Your task to perform on an android device: star an email in the gmail app Image 0: 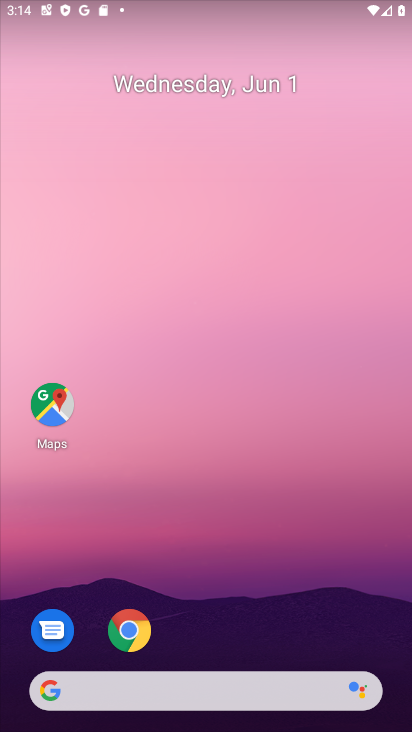
Step 0: drag from (239, 514) to (214, 4)
Your task to perform on an android device: star an email in the gmail app Image 1: 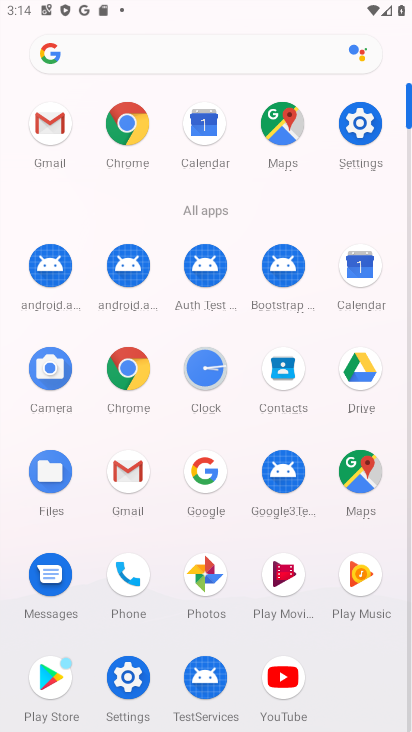
Step 1: click (45, 119)
Your task to perform on an android device: star an email in the gmail app Image 2: 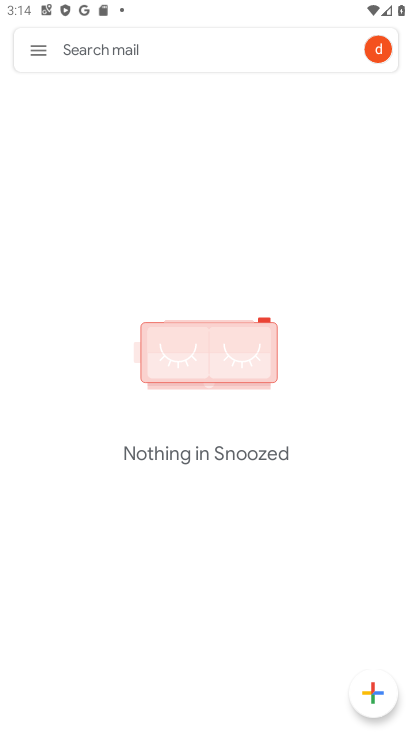
Step 2: click (35, 43)
Your task to perform on an android device: star an email in the gmail app Image 3: 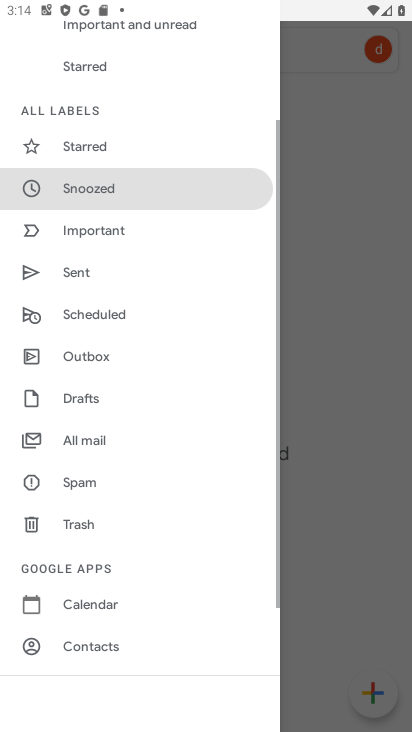
Step 3: click (55, 442)
Your task to perform on an android device: star an email in the gmail app Image 4: 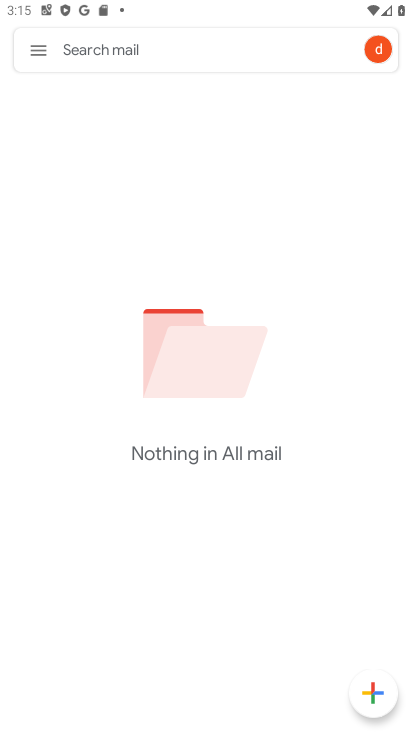
Step 4: task complete